Your task to perform on an android device: Go to display settings Image 0: 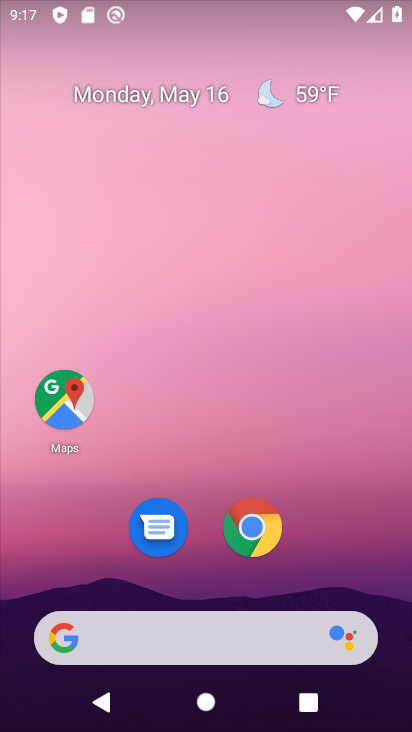
Step 0: drag from (392, 651) to (386, 423)
Your task to perform on an android device: Go to display settings Image 1: 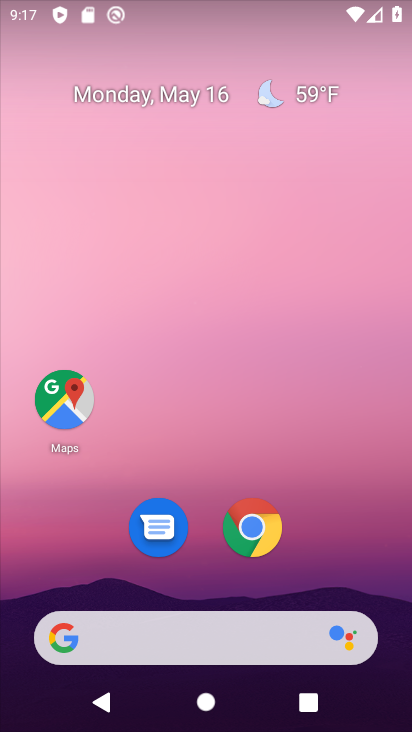
Step 1: drag from (392, 631) to (399, 16)
Your task to perform on an android device: Go to display settings Image 2: 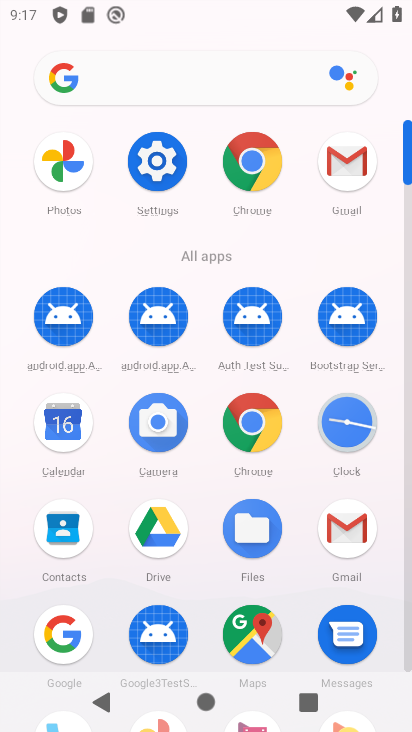
Step 2: drag from (408, 95) to (411, 22)
Your task to perform on an android device: Go to display settings Image 3: 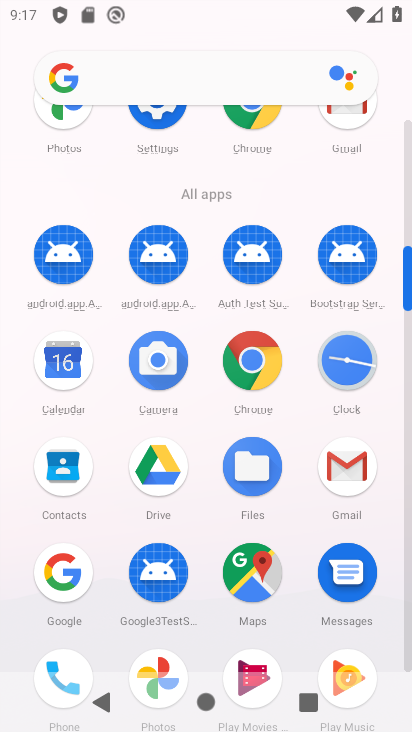
Step 3: drag from (408, 257) to (409, 149)
Your task to perform on an android device: Go to display settings Image 4: 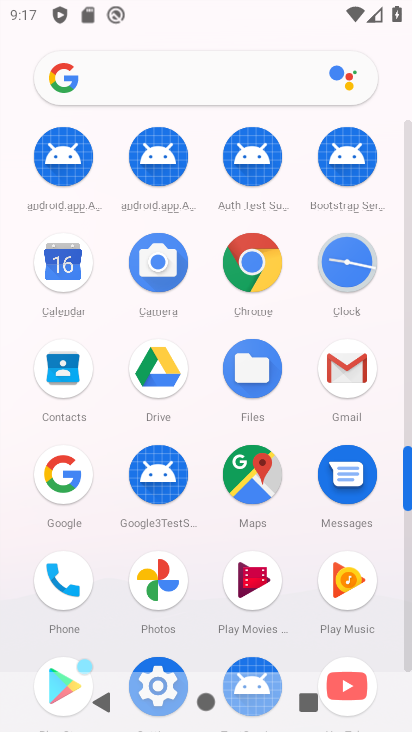
Step 4: click (153, 661)
Your task to perform on an android device: Go to display settings Image 5: 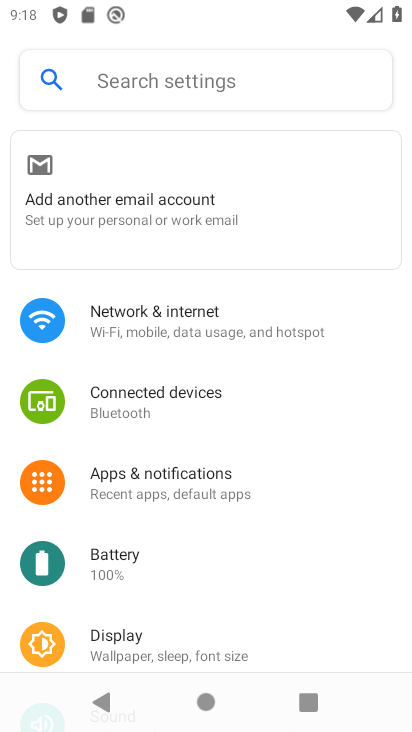
Step 5: click (105, 639)
Your task to perform on an android device: Go to display settings Image 6: 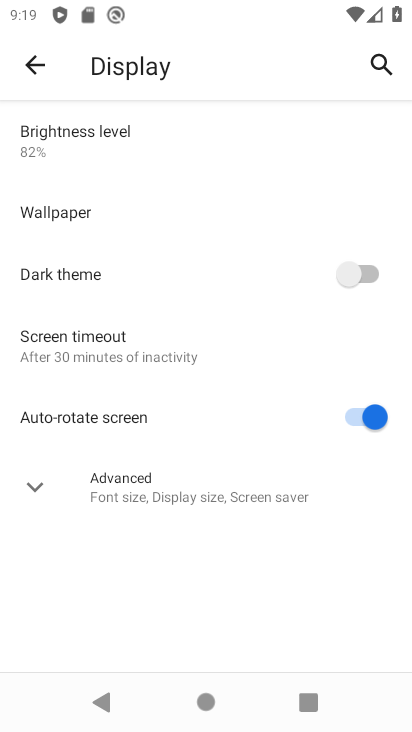
Step 6: task complete